Your task to perform on an android device: toggle notifications settings in the gmail app Image 0: 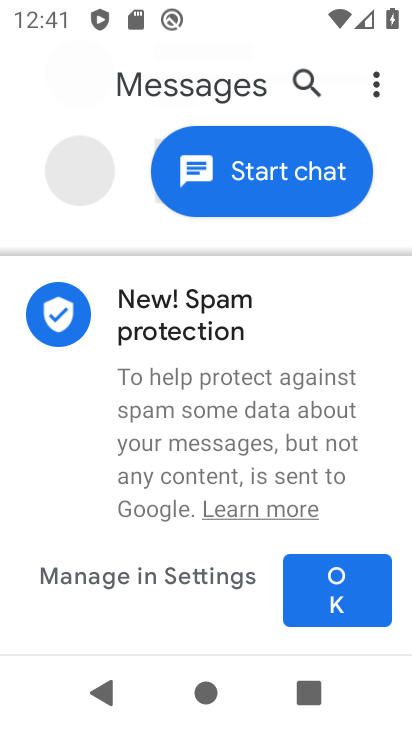
Step 0: press home button
Your task to perform on an android device: toggle notifications settings in the gmail app Image 1: 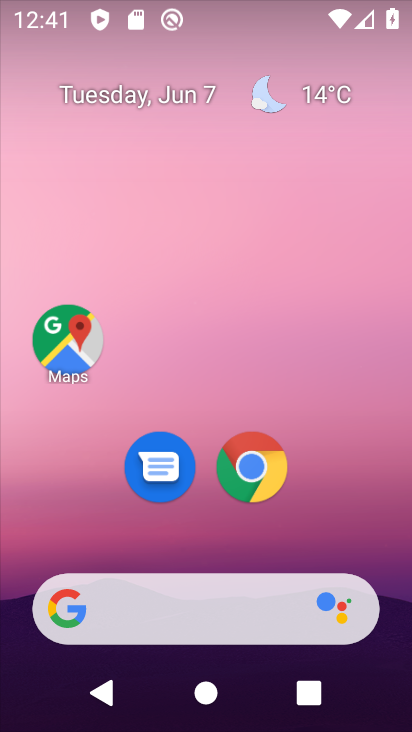
Step 1: drag from (191, 584) to (237, 48)
Your task to perform on an android device: toggle notifications settings in the gmail app Image 2: 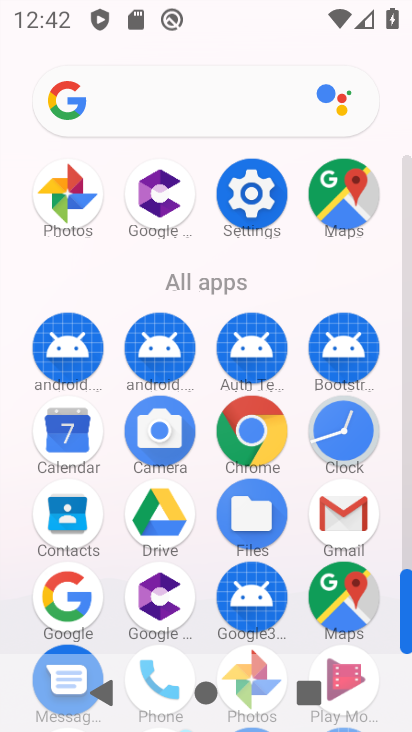
Step 2: click (320, 524)
Your task to perform on an android device: toggle notifications settings in the gmail app Image 3: 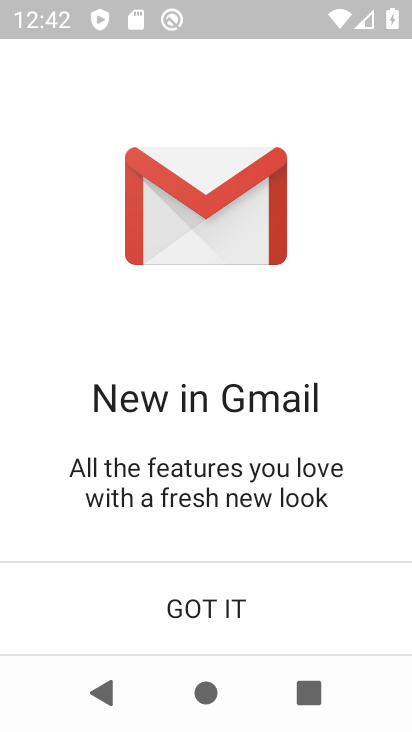
Step 3: click (222, 613)
Your task to perform on an android device: toggle notifications settings in the gmail app Image 4: 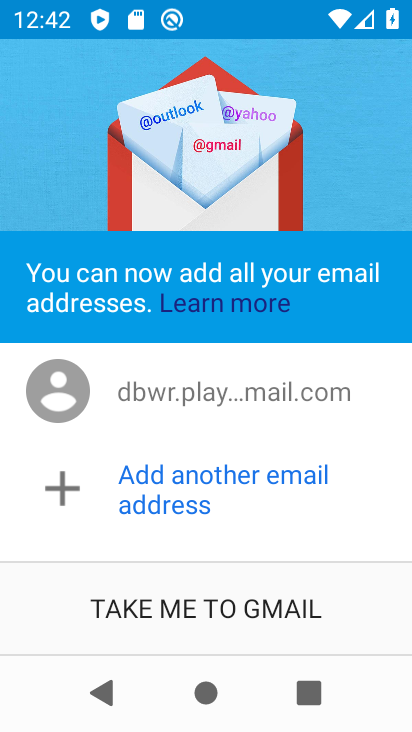
Step 4: click (180, 599)
Your task to perform on an android device: toggle notifications settings in the gmail app Image 5: 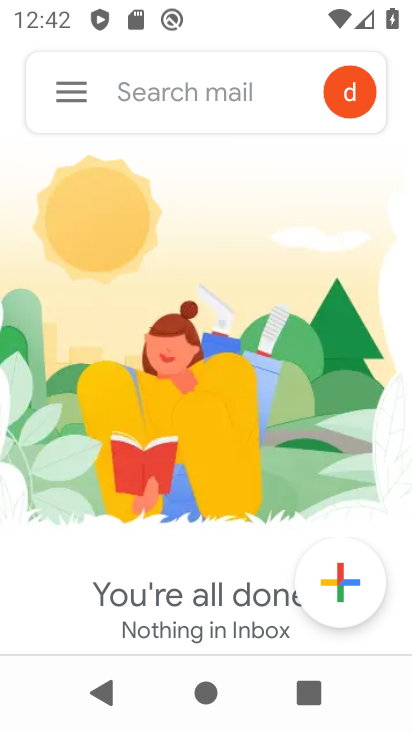
Step 5: click (76, 87)
Your task to perform on an android device: toggle notifications settings in the gmail app Image 6: 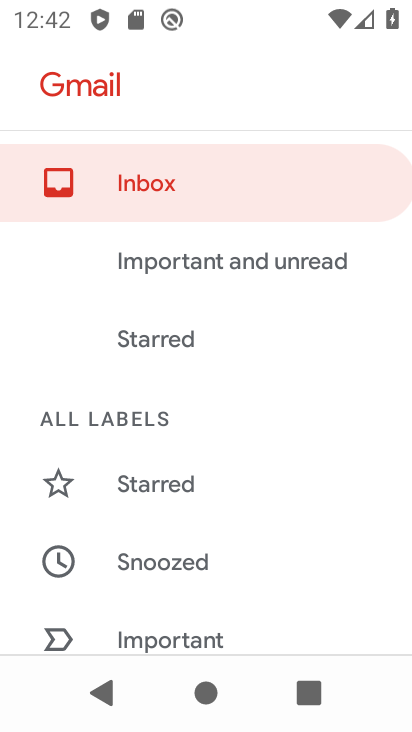
Step 6: drag from (110, 531) to (136, 178)
Your task to perform on an android device: toggle notifications settings in the gmail app Image 7: 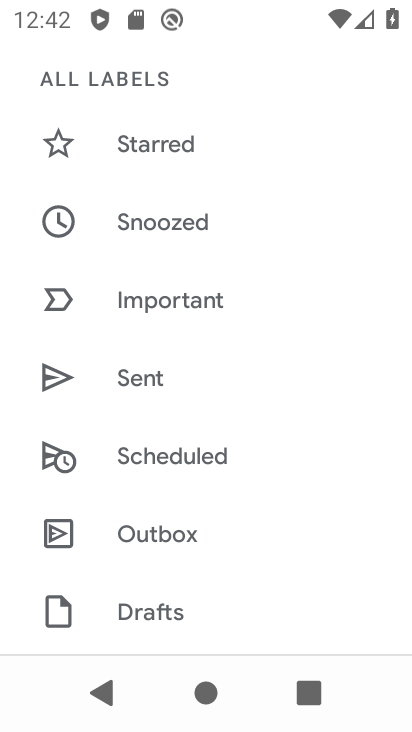
Step 7: drag from (209, 586) to (234, 231)
Your task to perform on an android device: toggle notifications settings in the gmail app Image 8: 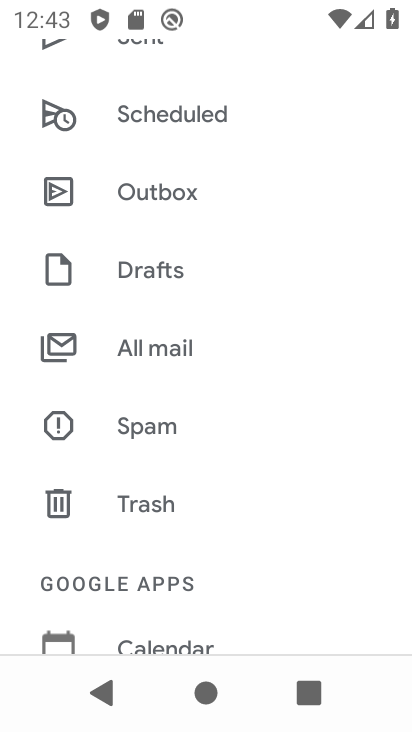
Step 8: drag from (212, 553) to (239, 35)
Your task to perform on an android device: toggle notifications settings in the gmail app Image 9: 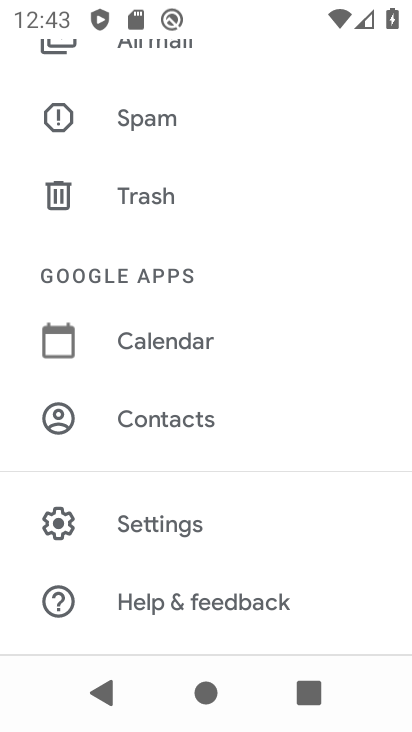
Step 9: click (97, 525)
Your task to perform on an android device: toggle notifications settings in the gmail app Image 10: 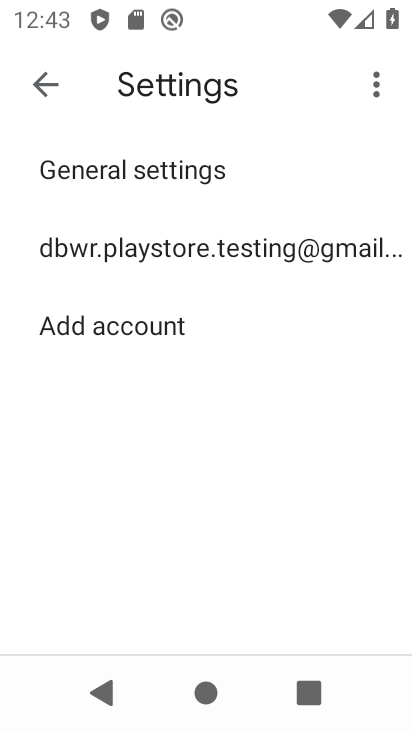
Step 10: click (205, 227)
Your task to perform on an android device: toggle notifications settings in the gmail app Image 11: 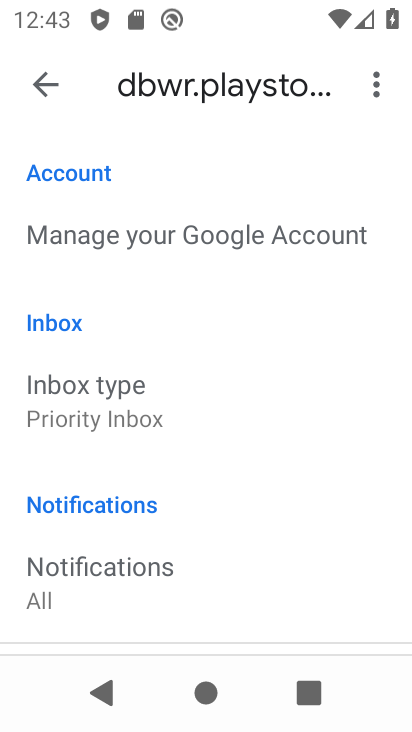
Step 11: drag from (184, 520) to (216, 228)
Your task to perform on an android device: toggle notifications settings in the gmail app Image 12: 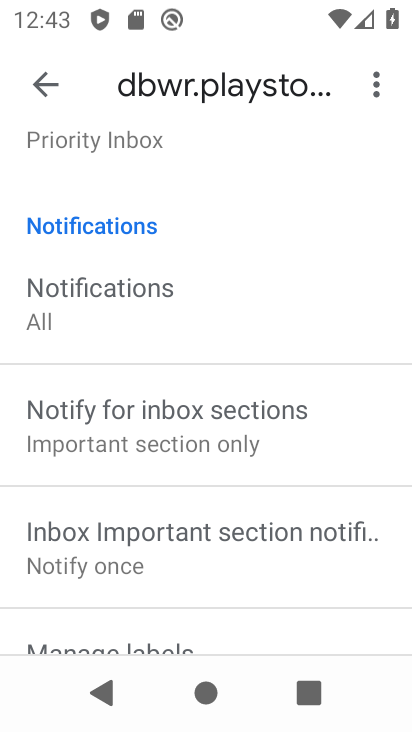
Step 12: drag from (216, 541) to (215, 195)
Your task to perform on an android device: toggle notifications settings in the gmail app Image 13: 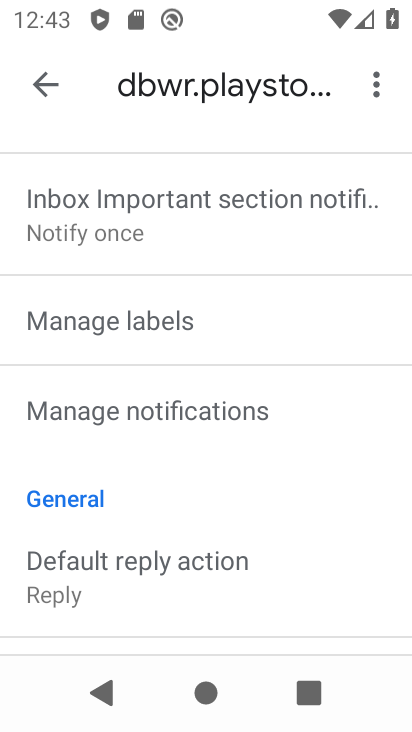
Step 13: click (212, 406)
Your task to perform on an android device: toggle notifications settings in the gmail app Image 14: 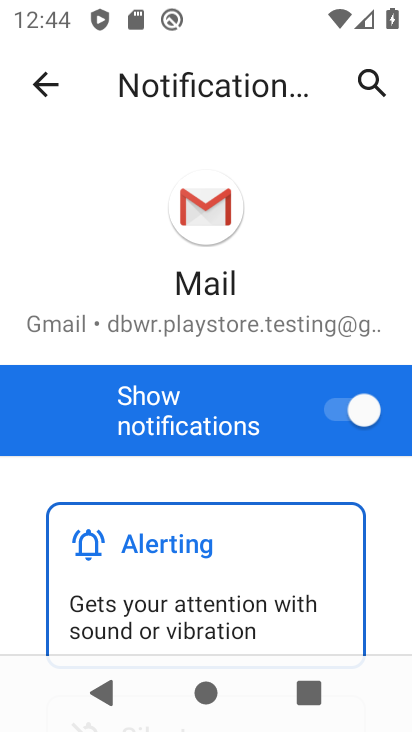
Step 14: click (347, 398)
Your task to perform on an android device: toggle notifications settings in the gmail app Image 15: 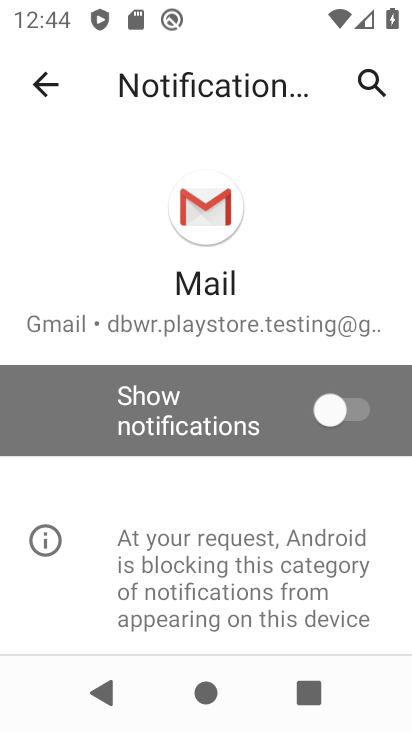
Step 15: task complete